Your task to perform on an android device: Open Chrome and go to settings Image 0: 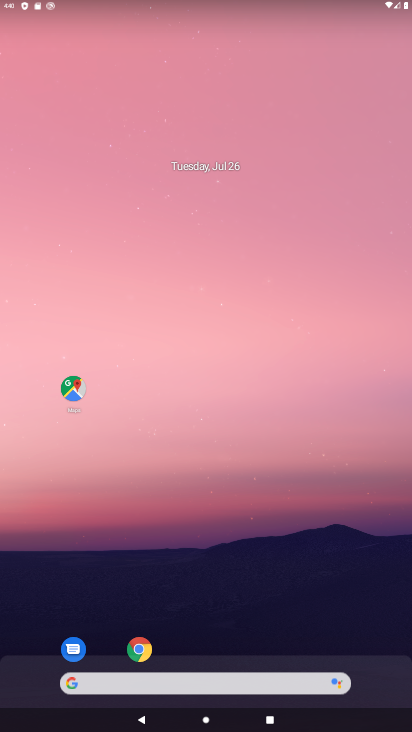
Step 0: click (144, 660)
Your task to perform on an android device: Open Chrome and go to settings Image 1: 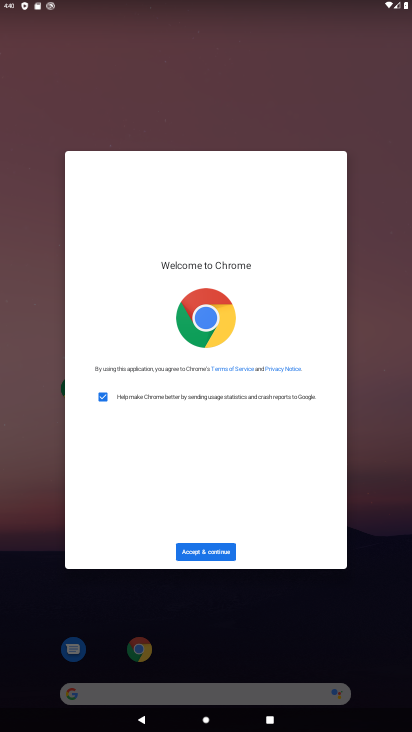
Step 1: click (198, 554)
Your task to perform on an android device: Open Chrome and go to settings Image 2: 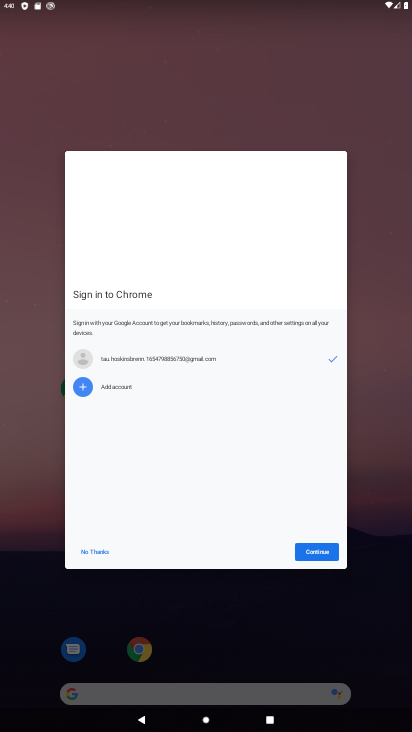
Step 2: click (307, 554)
Your task to perform on an android device: Open Chrome and go to settings Image 3: 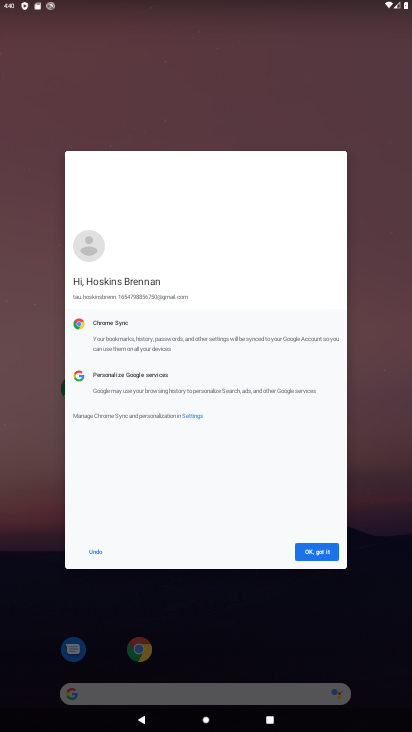
Step 3: click (307, 554)
Your task to perform on an android device: Open Chrome and go to settings Image 4: 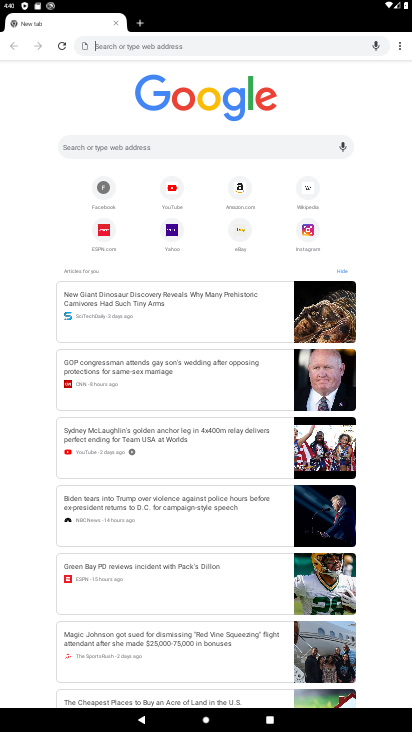
Step 4: click (404, 43)
Your task to perform on an android device: Open Chrome and go to settings Image 5: 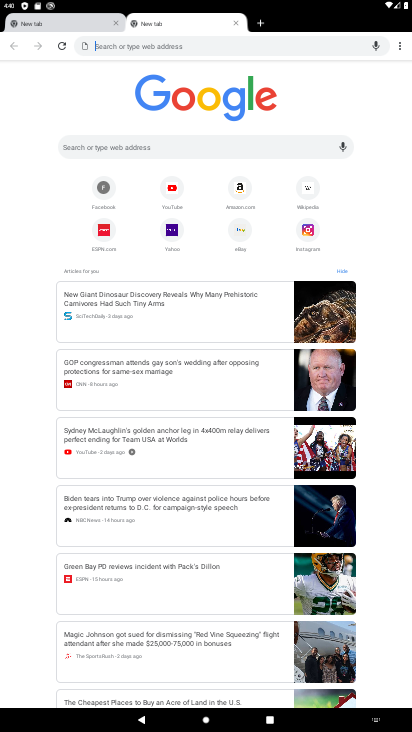
Step 5: click (400, 47)
Your task to perform on an android device: Open Chrome and go to settings Image 6: 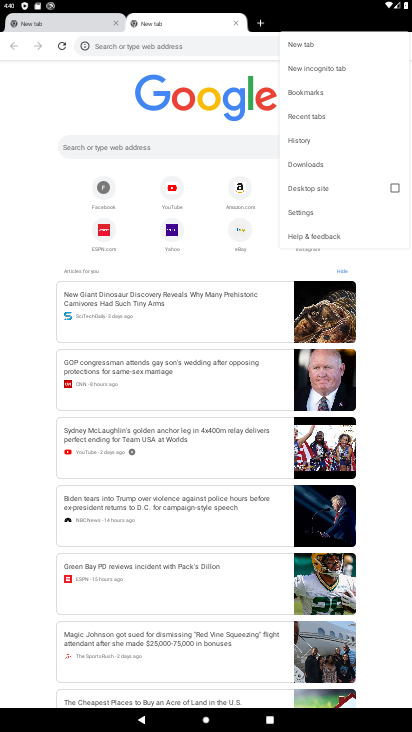
Step 6: click (292, 215)
Your task to perform on an android device: Open Chrome and go to settings Image 7: 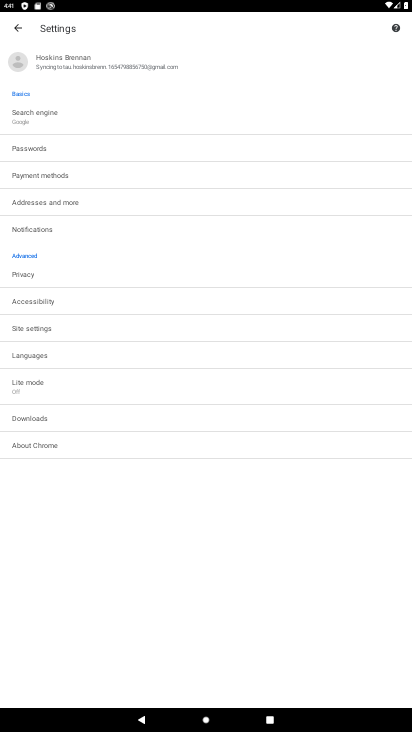
Step 7: task complete